Your task to perform on an android device: Open Chrome and go to settings Image 0: 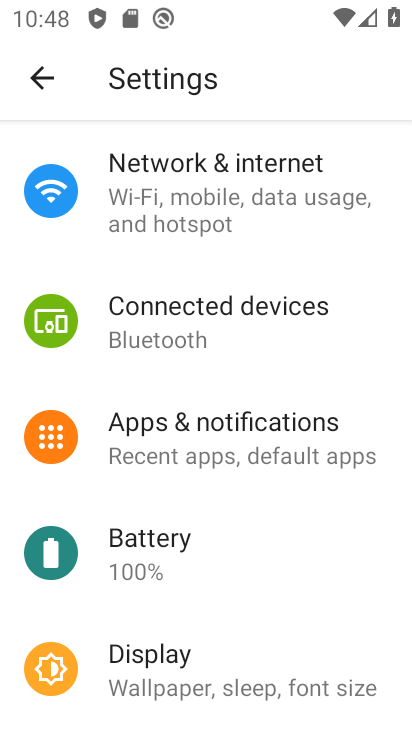
Step 0: press home button
Your task to perform on an android device: Open Chrome and go to settings Image 1: 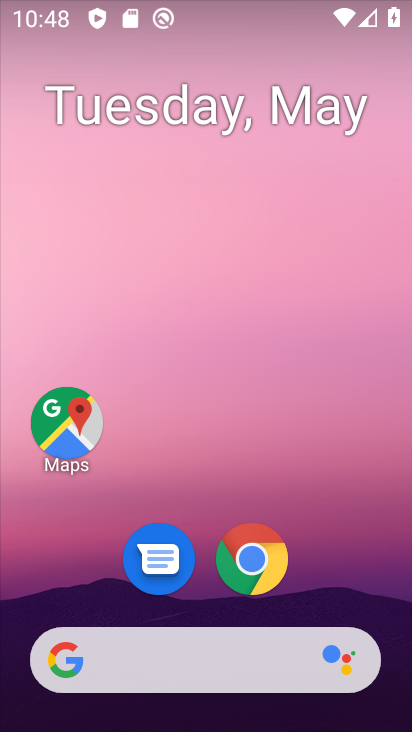
Step 1: drag from (378, 594) to (315, 87)
Your task to perform on an android device: Open Chrome and go to settings Image 2: 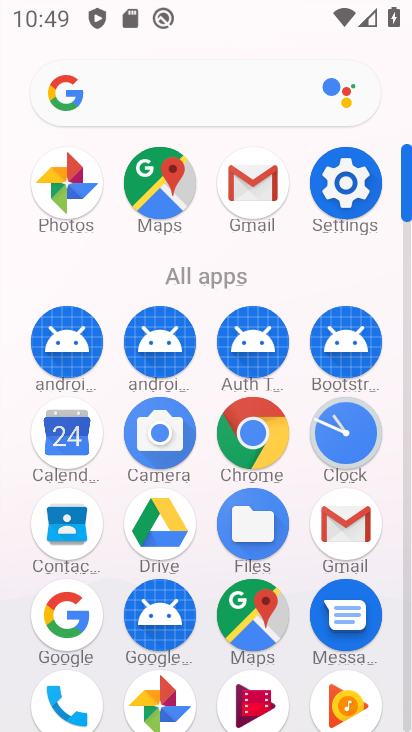
Step 2: click (265, 410)
Your task to perform on an android device: Open Chrome and go to settings Image 3: 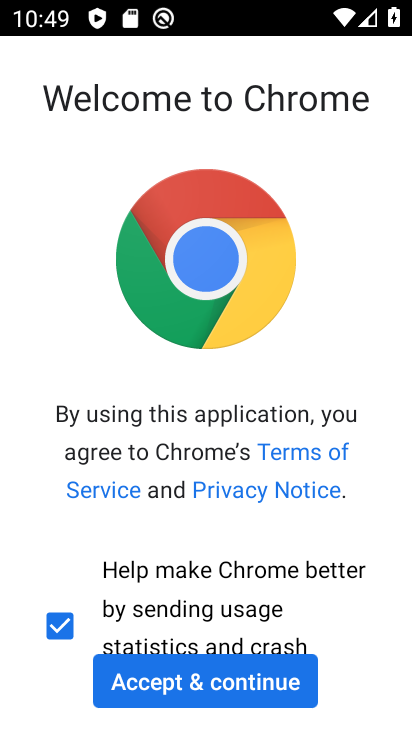
Step 3: click (276, 692)
Your task to perform on an android device: Open Chrome and go to settings Image 4: 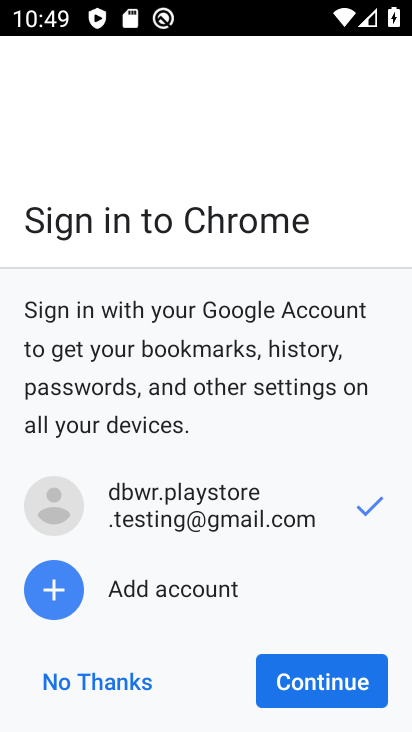
Step 4: click (314, 684)
Your task to perform on an android device: Open Chrome and go to settings Image 5: 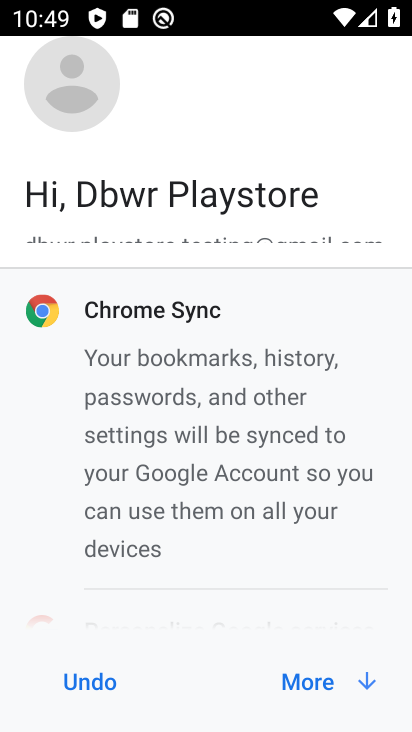
Step 5: click (314, 684)
Your task to perform on an android device: Open Chrome and go to settings Image 6: 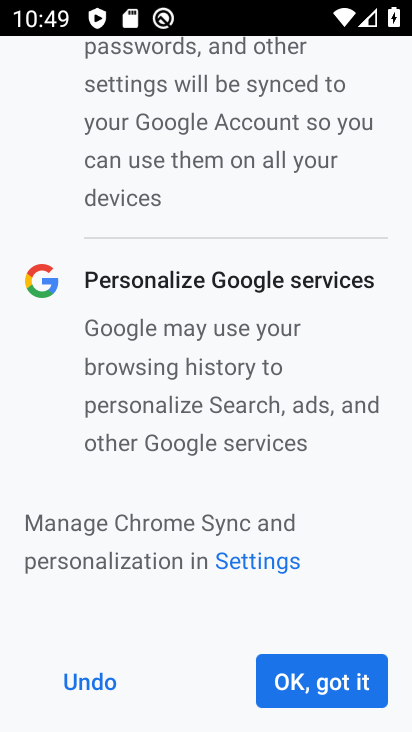
Step 6: click (314, 684)
Your task to perform on an android device: Open Chrome and go to settings Image 7: 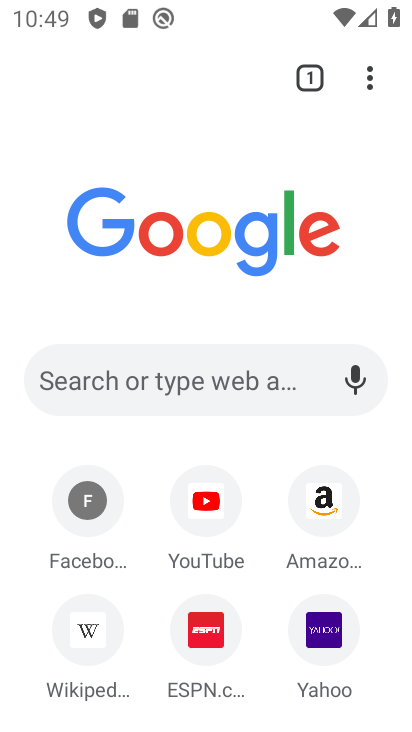
Step 7: click (361, 77)
Your task to perform on an android device: Open Chrome and go to settings Image 8: 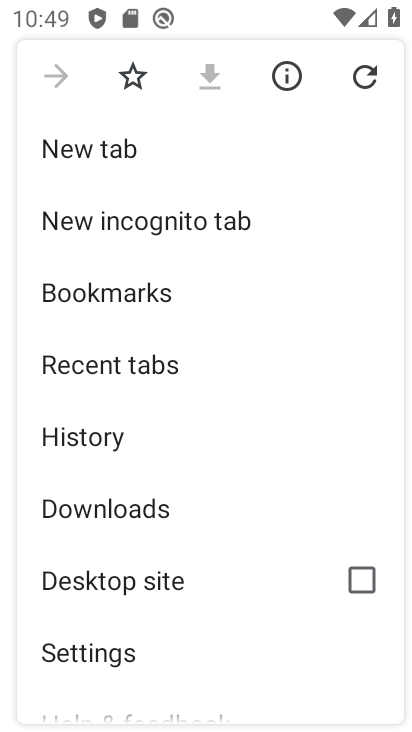
Step 8: click (212, 647)
Your task to perform on an android device: Open Chrome and go to settings Image 9: 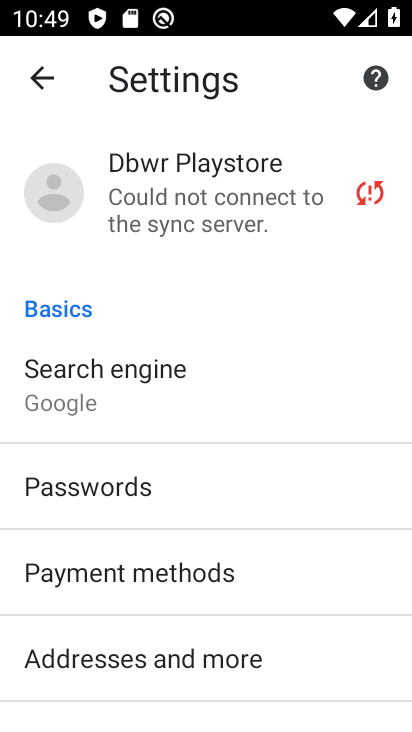
Step 9: task complete